Your task to perform on an android device: What is the news today? Image 0: 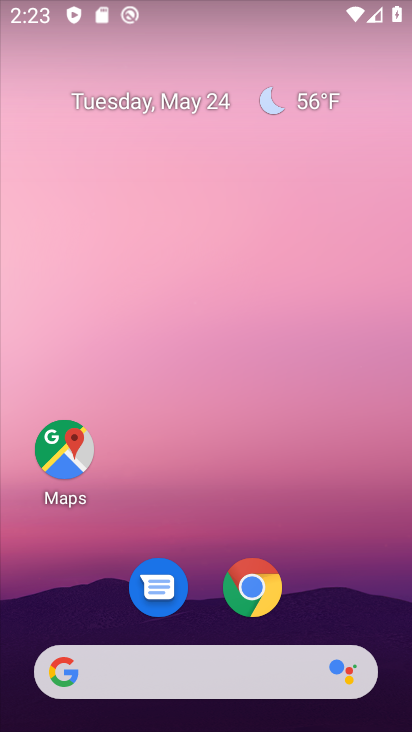
Step 0: click (242, 655)
Your task to perform on an android device: What is the news today? Image 1: 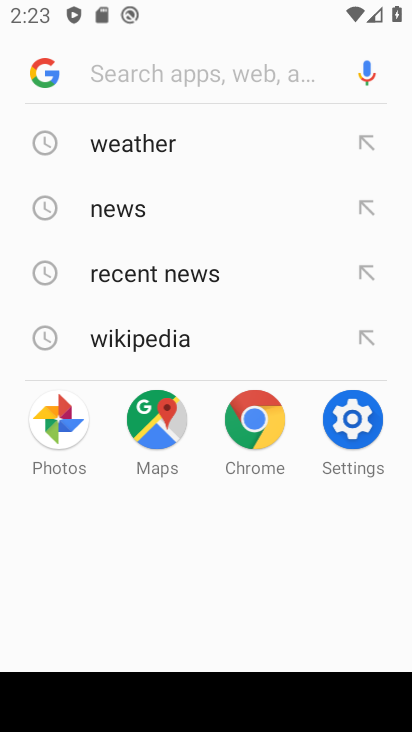
Step 1: click (160, 210)
Your task to perform on an android device: What is the news today? Image 2: 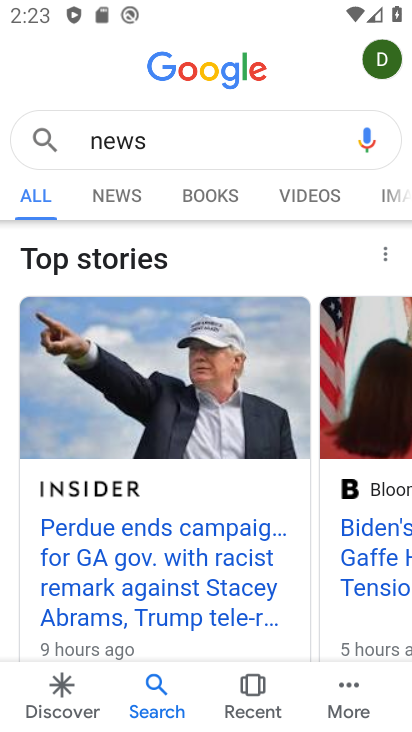
Step 2: task complete